Your task to perform on an android device: set an alarm Image 0: 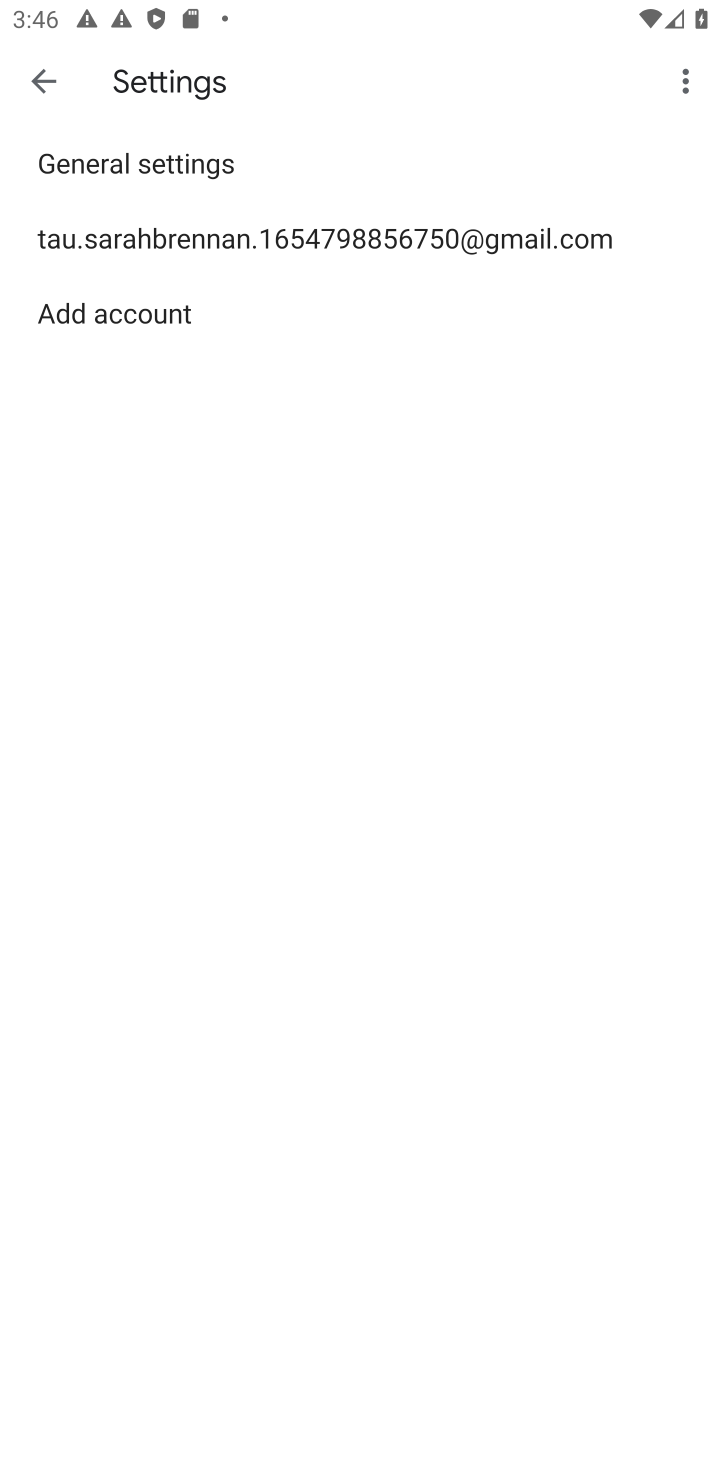
Step 0: press home button
Your task to perform on an android device: set an alarm Image 1: 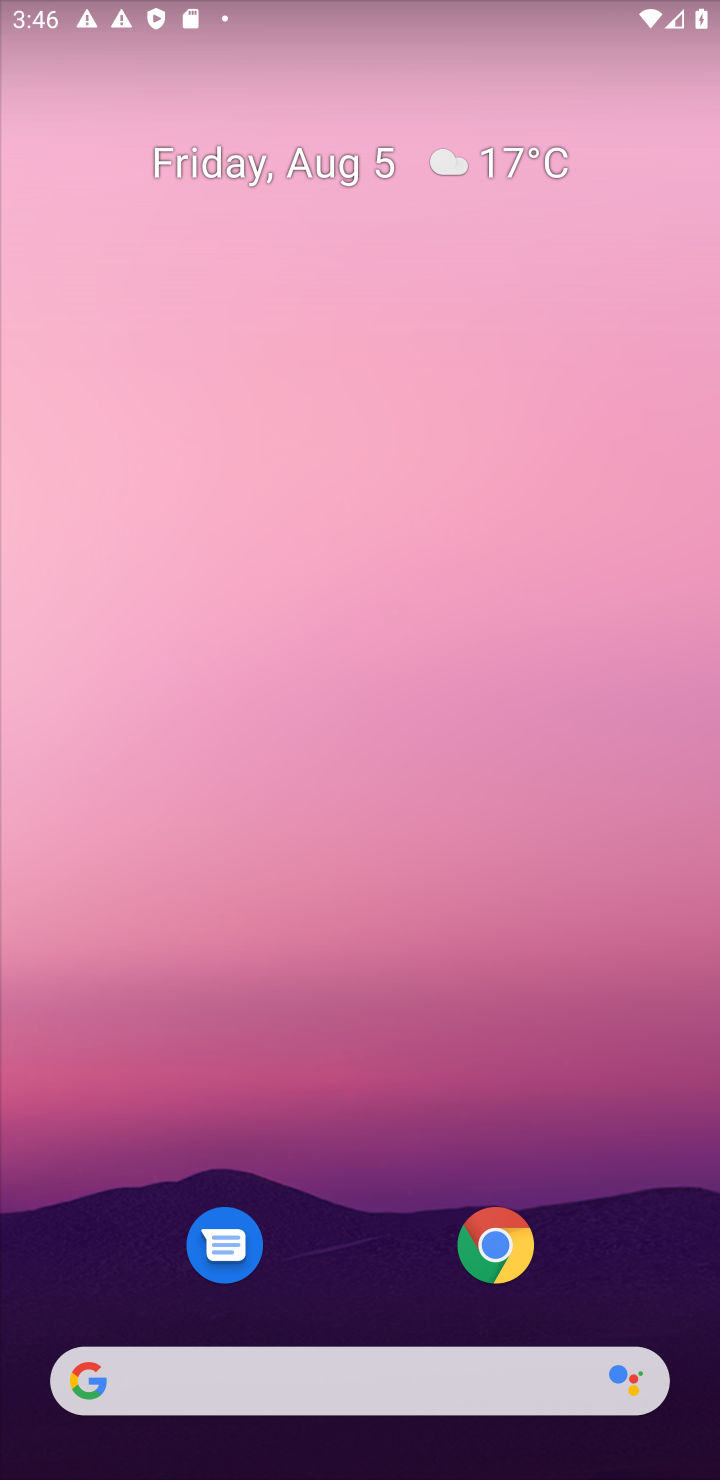
Step 1: drag from (89, 1267) to (219, 800)
Your task to perform on an android device: set an alarm Image 2: 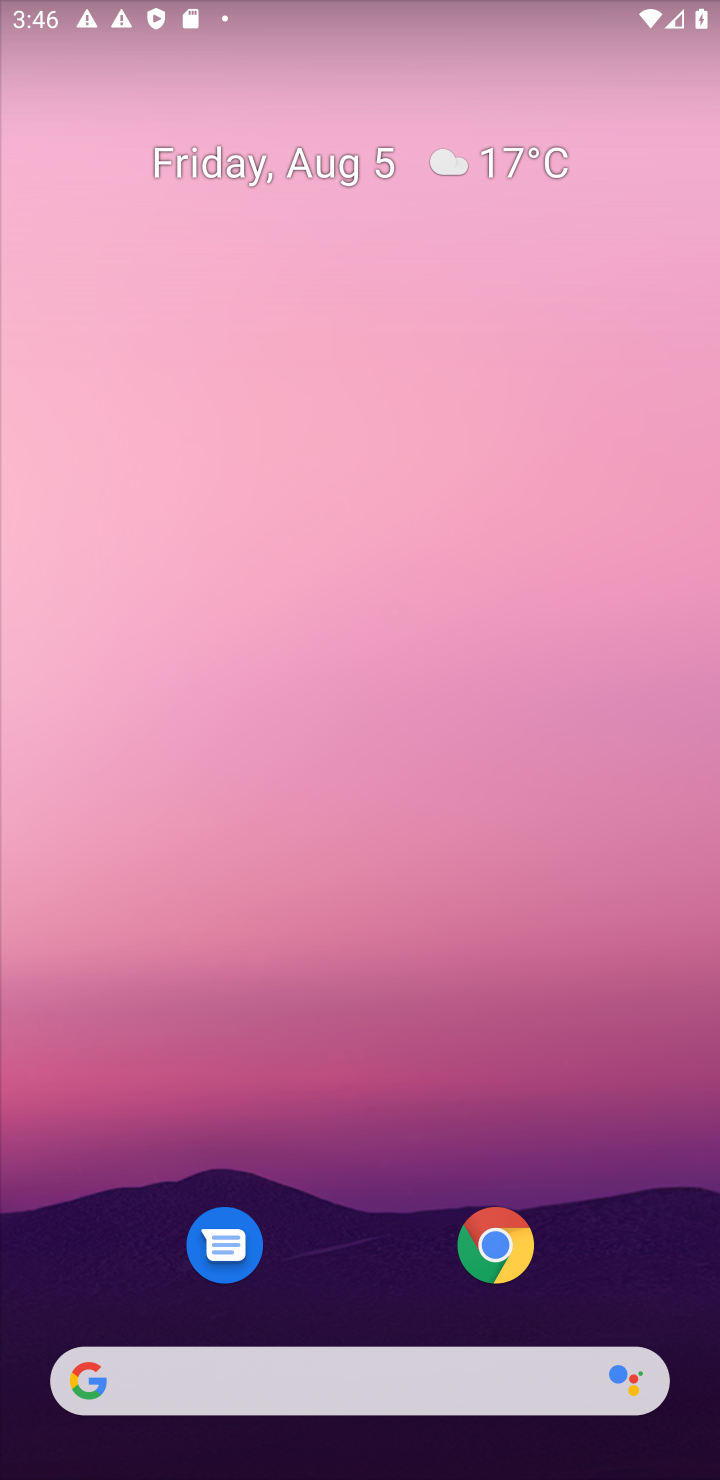
Step 2: drag from (52, 1320) to (463, 512)
Your task to perform on an android device: set an alarm Image 3: 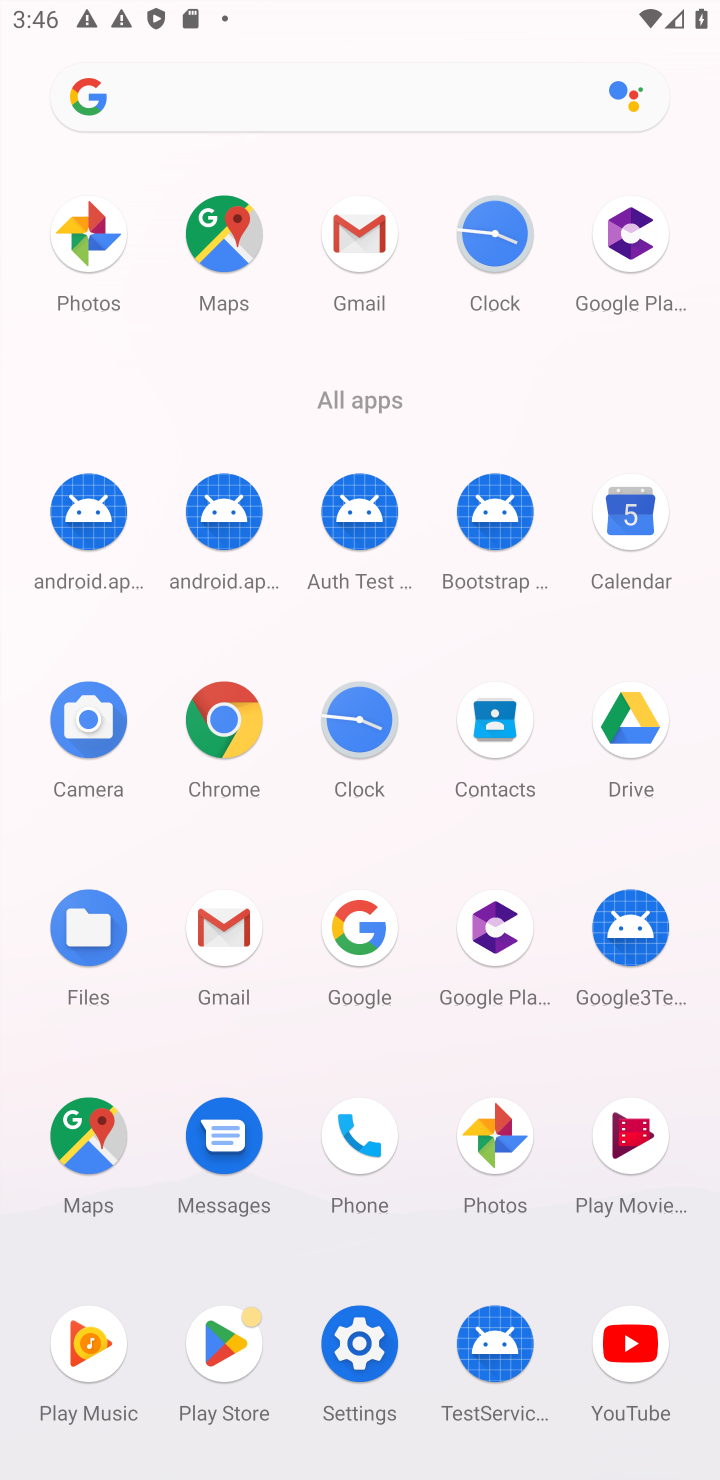
Step 3: click (354, 741)
Your task to perform on an android device: set an alarm Image 4: 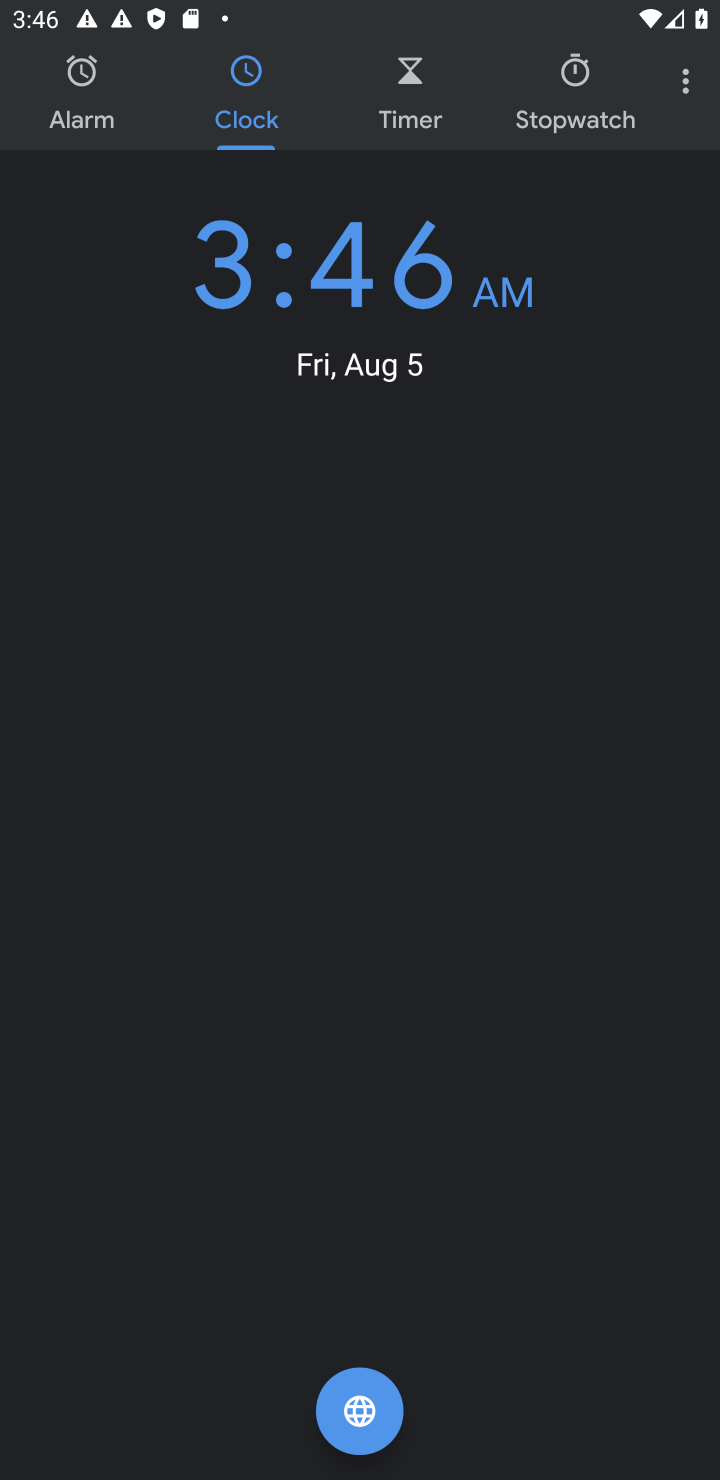
Step 4: click (95, 110)
Your task to perform on an android device: set an alarm Image 5: 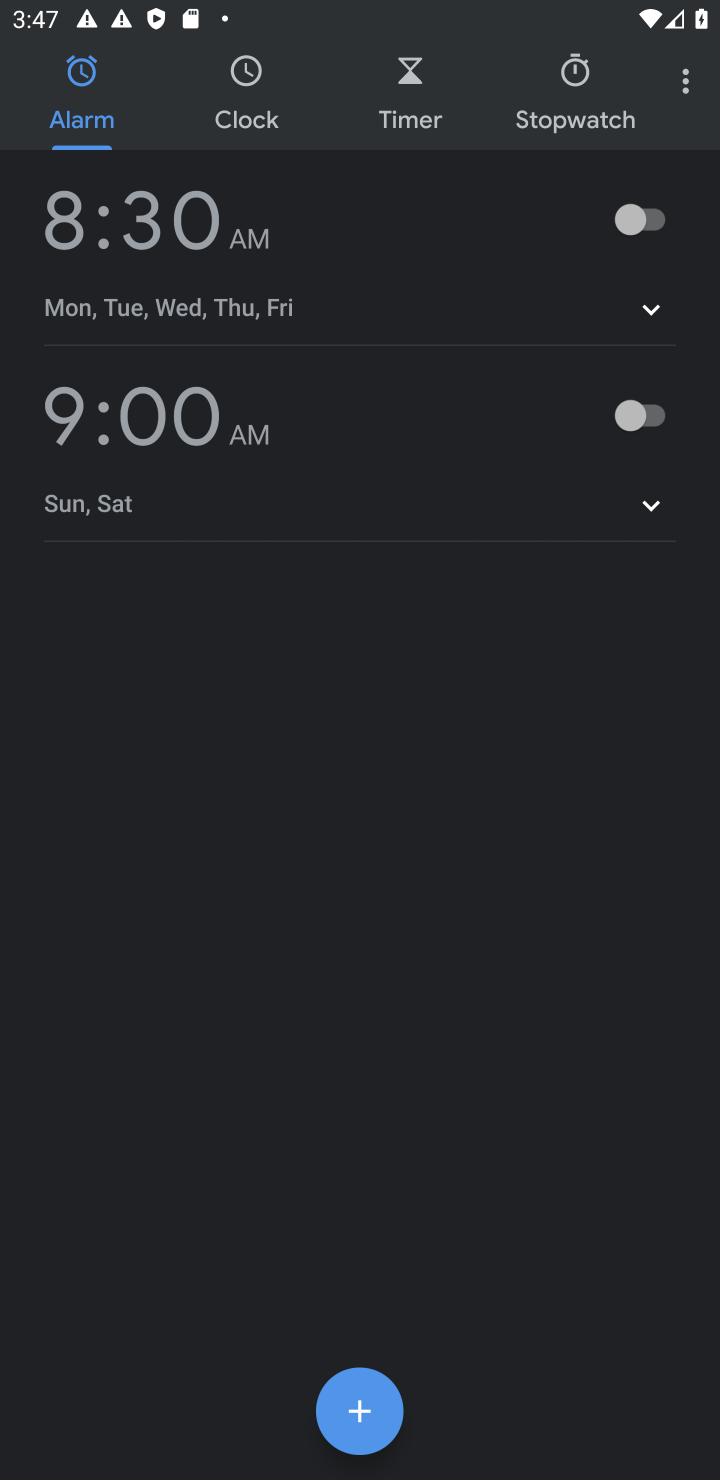
Step 5: click (613, 231)
Your task to perform on an android device: set an alarm Image 6: 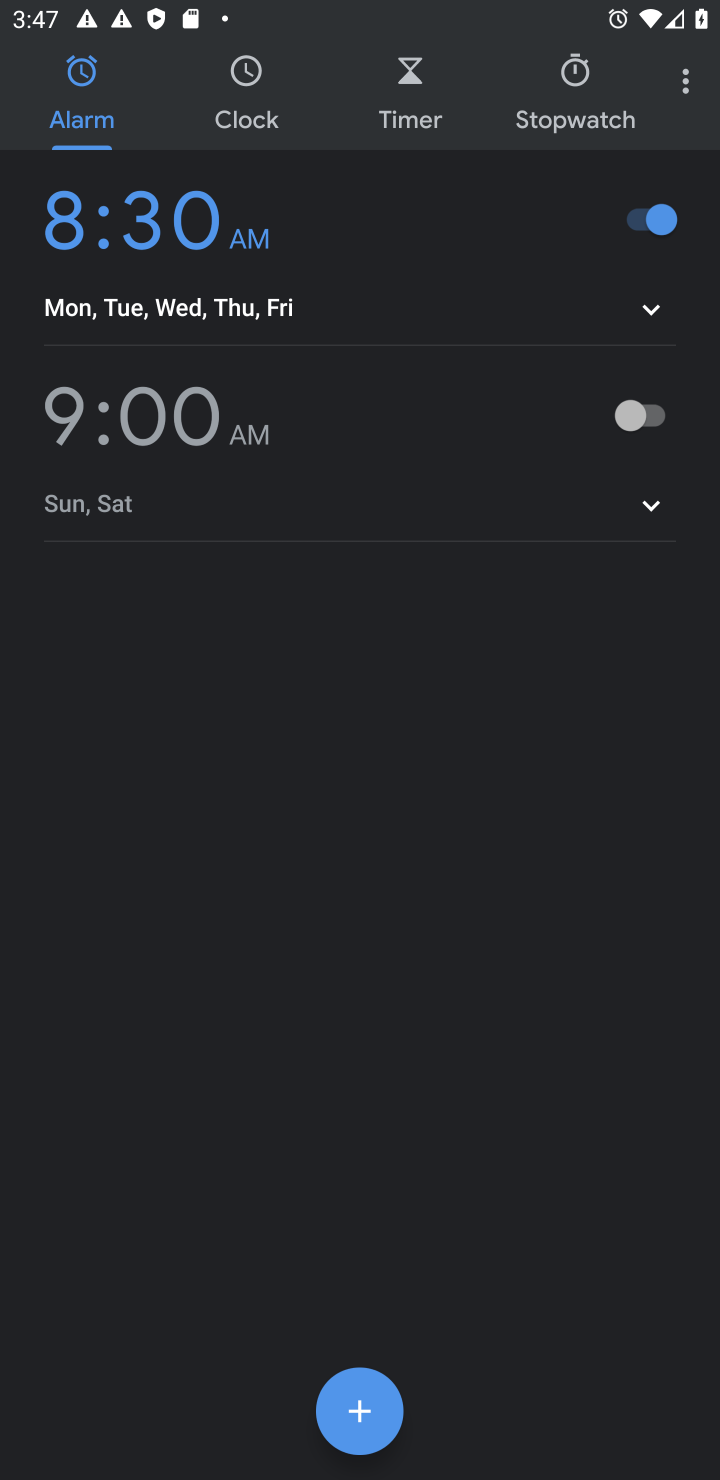
Step 6: task complete